Your task to perform on an android device: turn off translation in the chrome app Image 0: 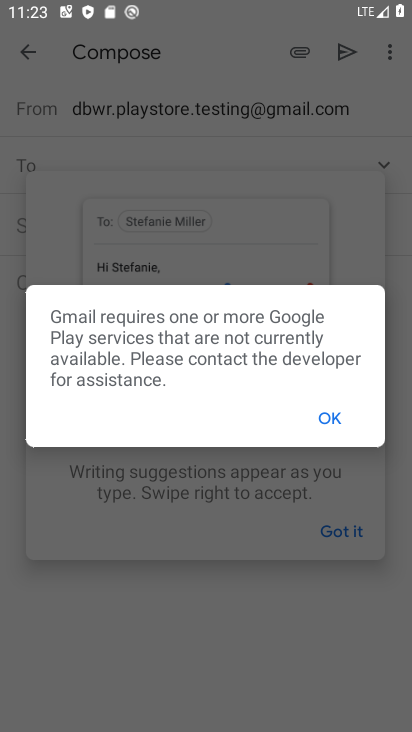
Step 0: press home button
Your task to perform on an android device: turn off translation in the chrome app Image 1: 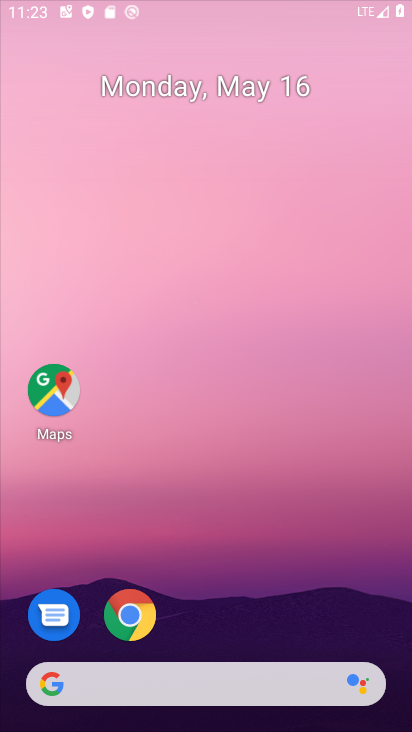
Step 1: drag from (221, 603) to (195, 216)
Your task to perform on an android device: turn off translation in the chrome app Image 2: 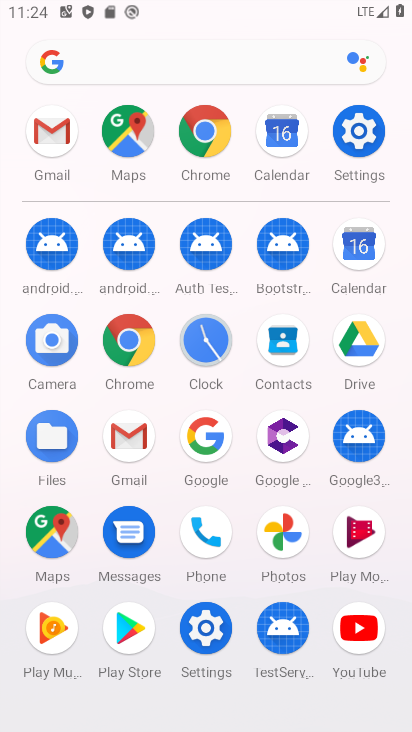
Step 2: click (137, 360)
Your task to perform on an android device: turn off translation in the chrome app Image 3: 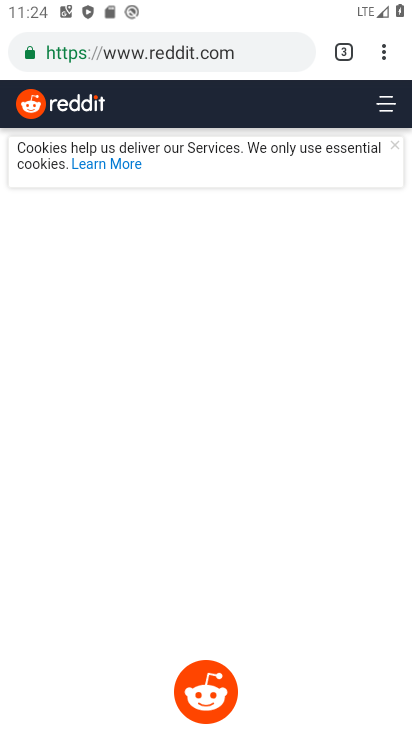
Step 3: click (396, 57)
Your task to perform on an android device: turn off translation in the chrome app Image 4: 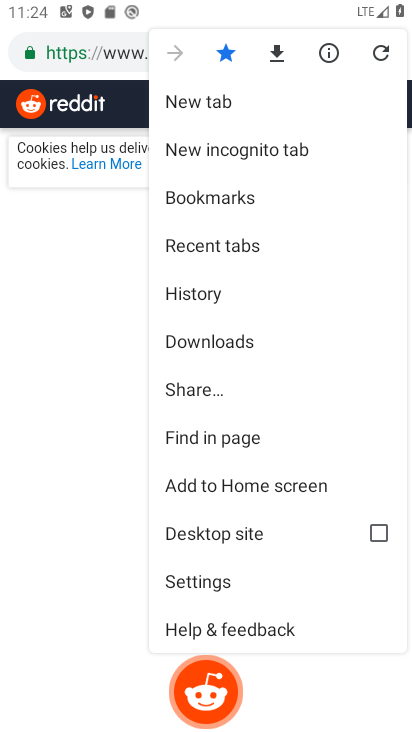
Step 4: task complete